Your task to perform on an android device: toggle pop-ups in chrome Image 0: 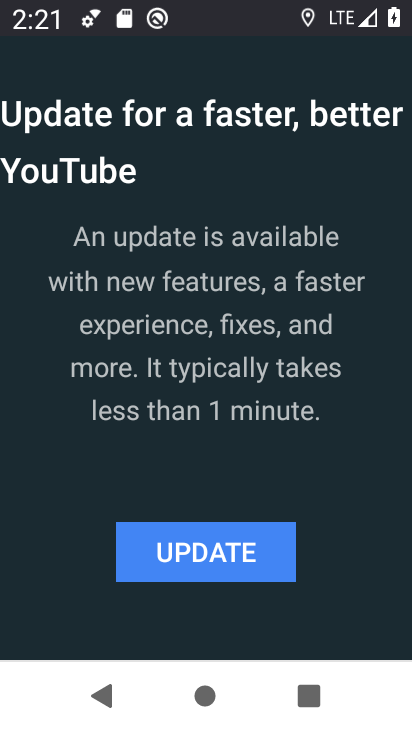
Step 0: press home button
Your task to perform on an android device: toggle pop-ups in chrome Image 1: 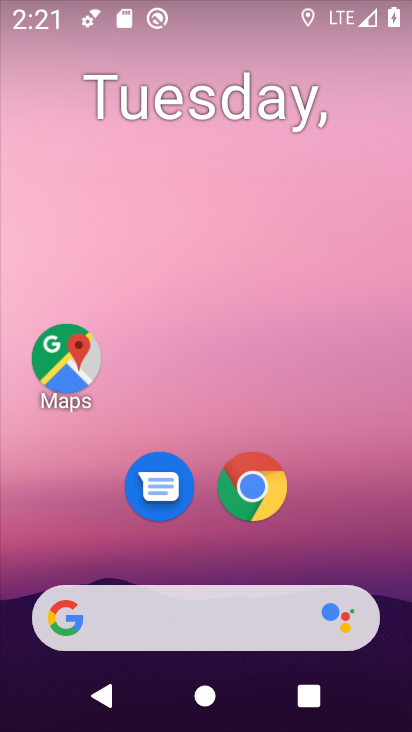
Step 1: drag from (358, 559) to (337, 117)
Your task to perform on an android device: toggle pop-ups in chrome Image 2: 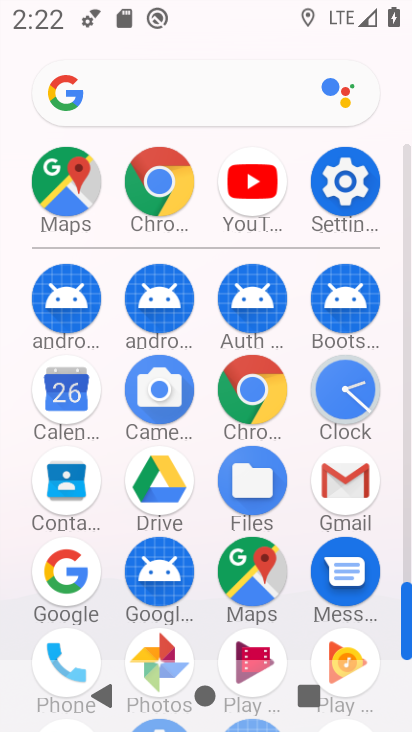
Step 2: click (249, 394)
Your task to perform on an android device: toggle pop-ups in chrome Image 3: 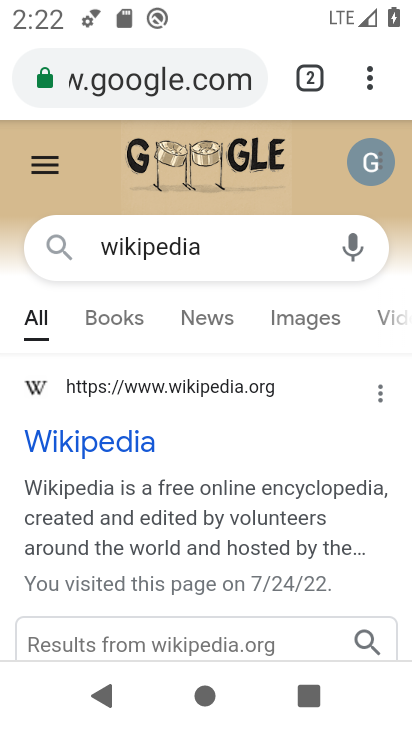
Step 3: click (369, 87)
Your task to perform on an android device: toggle pop-ups in chrome Image 4: 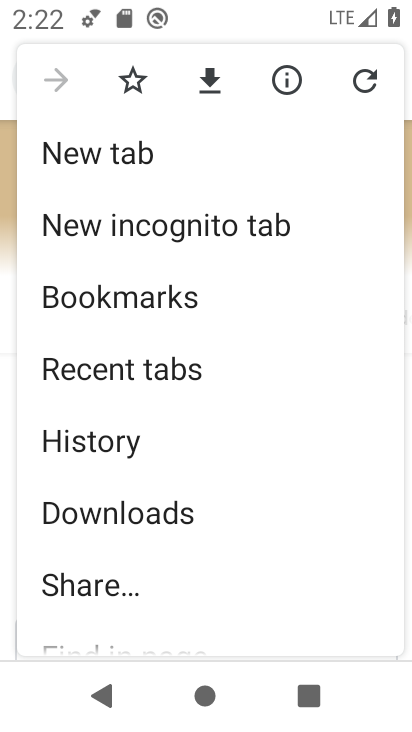
Step 4: drag from (314, 466) to (316, 375)
Your task to perform on an android device: toggle pop-ups in chrome Image 5: 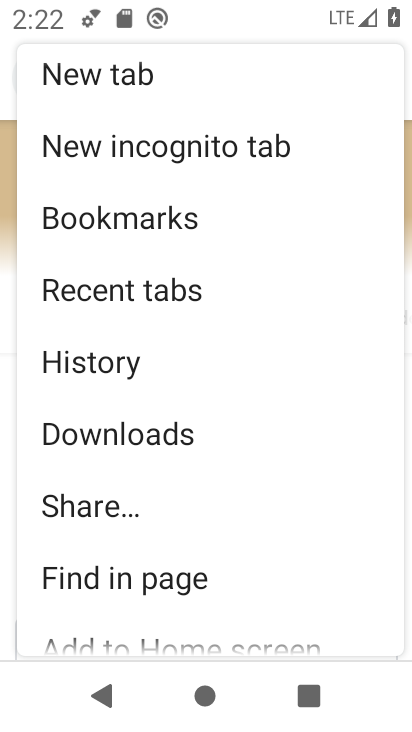
Step 5: drag from (319, 507) to (319, 385)
Your task to perform on an android device: toggle pop-ups in chrome Image 6: 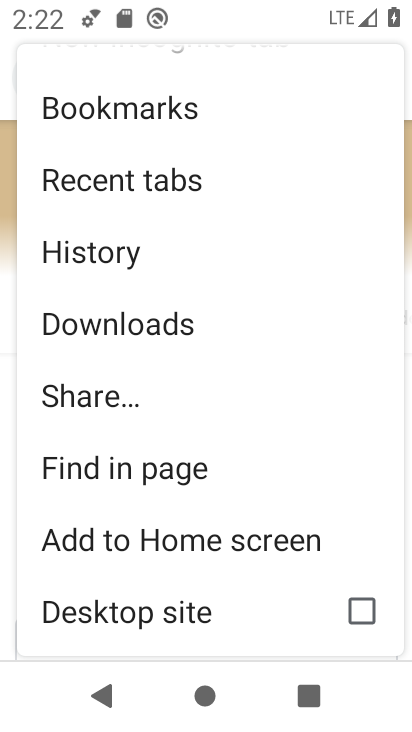
Step 6: drag from (321, 532) to (323, 411)
Your task to perform on an android device: toggle pop-ups in chrome Image 7: 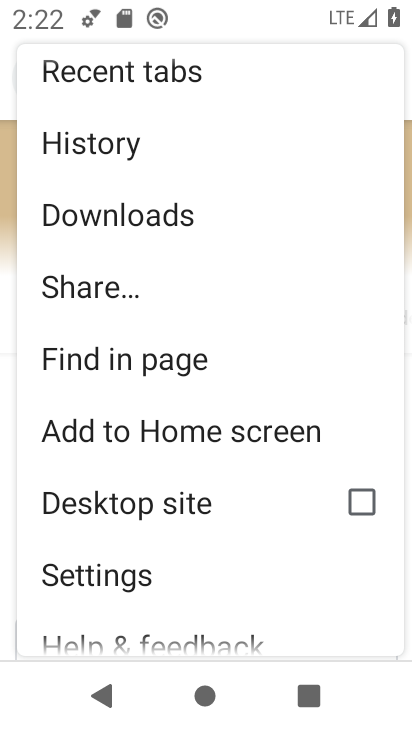
Step 7: drag from (267, 573) to (270, 407)
Your task to perform on an android device: toggle pop-ups in chrome Image 8: 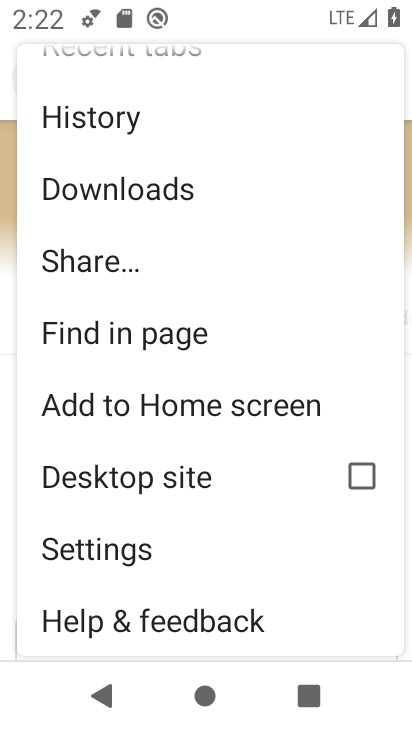
Step 8: click (246, 544)
Your task to perform on an android device: toggle pop-ups in chrome Image 9: 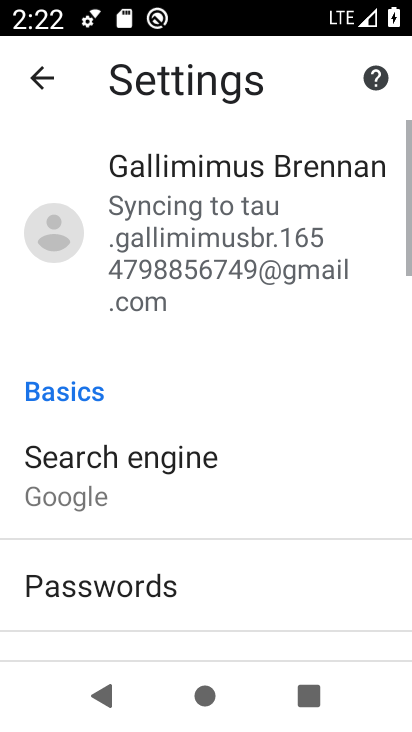
Step 9: drag from (270, 529) to (283, 443)
Your task to perform on an android device: toggle pop-ups in chrome Image 10: 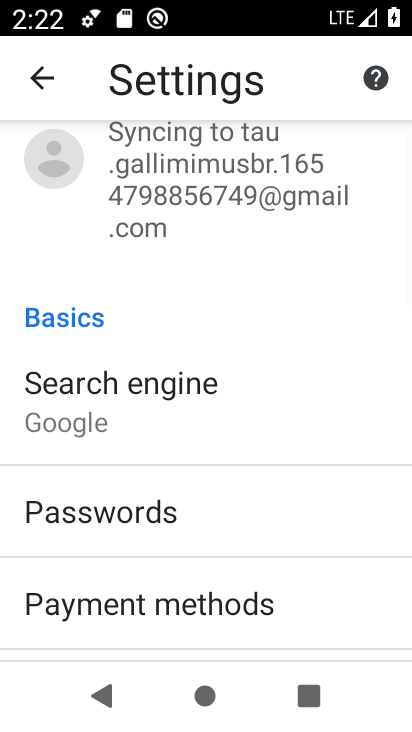
Step 10: drag from (316, 570) to (323, 454)
Your task to perform on an android device: toggle pop-ups in chrome Image 11: 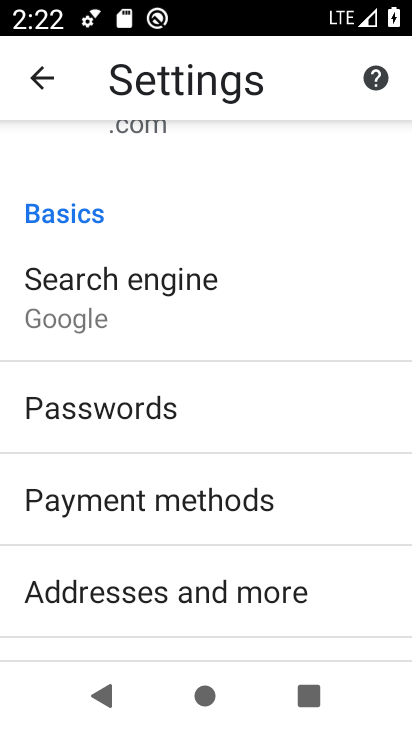
Step 11: drag from (349, 566) to (351, 480)
Your task to perform on an android device: toggle pop-ups in chrome Image 12: 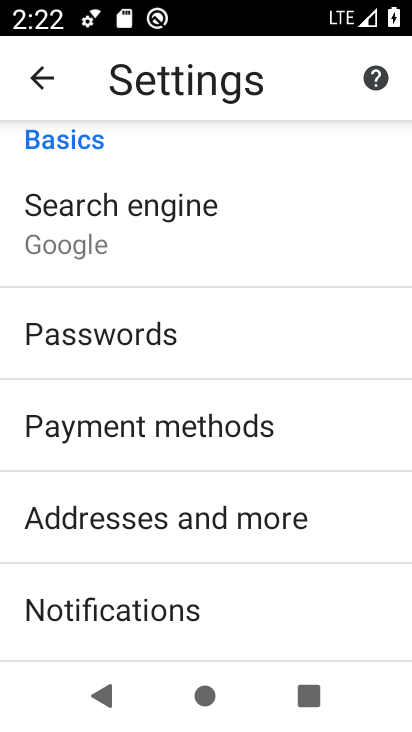
Step 12: drag from (359, 494) to (358, 410)
Your task to perform on an android device: toggle pop-ups in chrome Image 13: 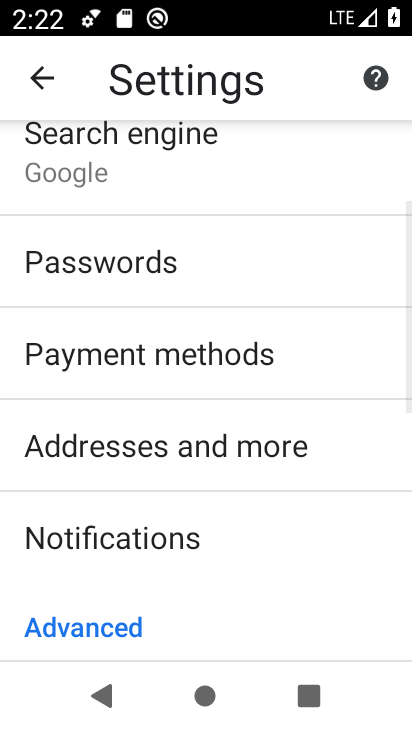
Step 13: drag from (330, 512) to (334, 435)
Your task to perform on an android device: toggle pop-ups in chrome Image 14: 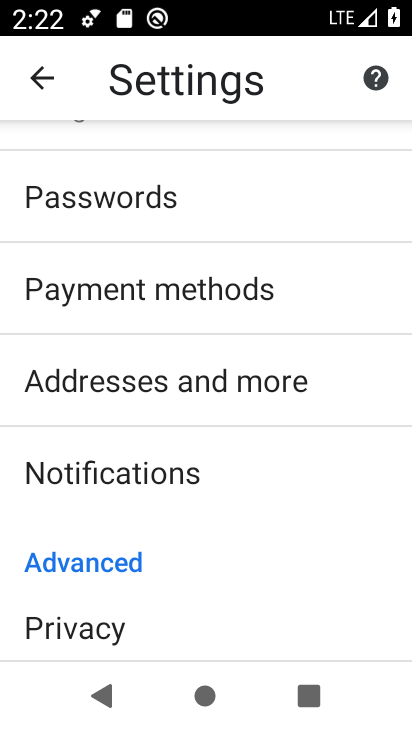
Step 14: drag from (317, 514) to (319, 411)
Your task to perform on an android device: toggle pop-ups in chrome Image 15: 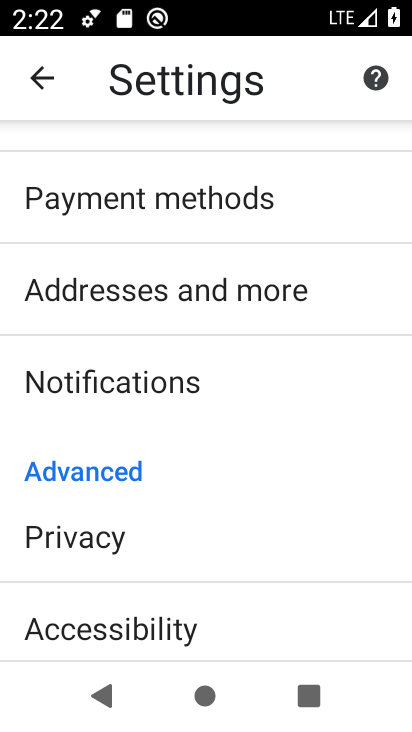
Step 15: drag from (316, 465) to (319, 342)
Your task to perform on an android device: toggle pop-ups in chrome Image 16: 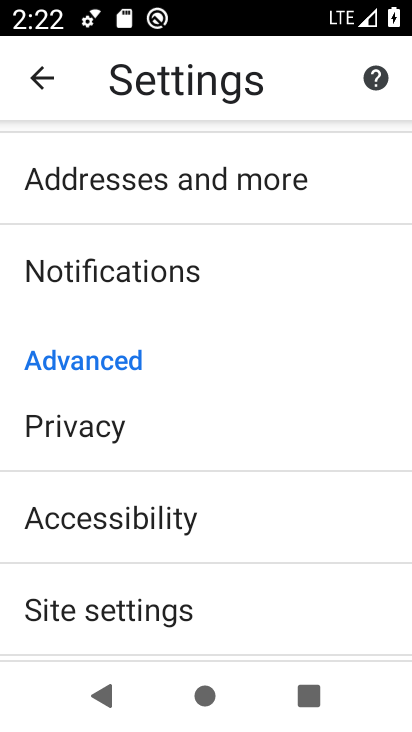
Step 16: drag from (294, 544) to (294, 417)
Your task to perform on an android device: toggle pop-ups in chrome Image 17: 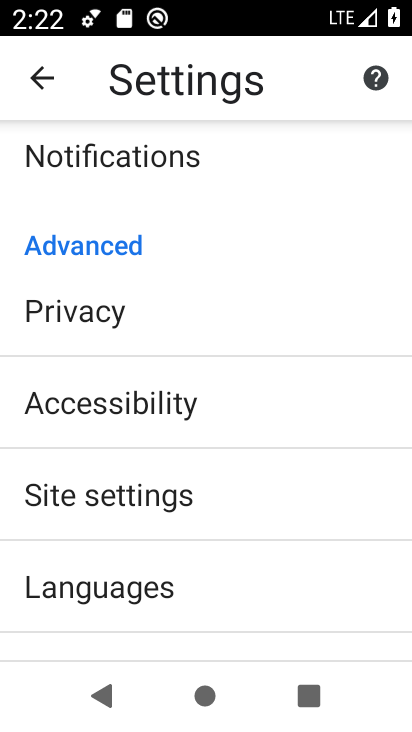
Step 17: click (287, 500)
Your task to perform on an android device: toggle pop-ups in chrome Image 18: 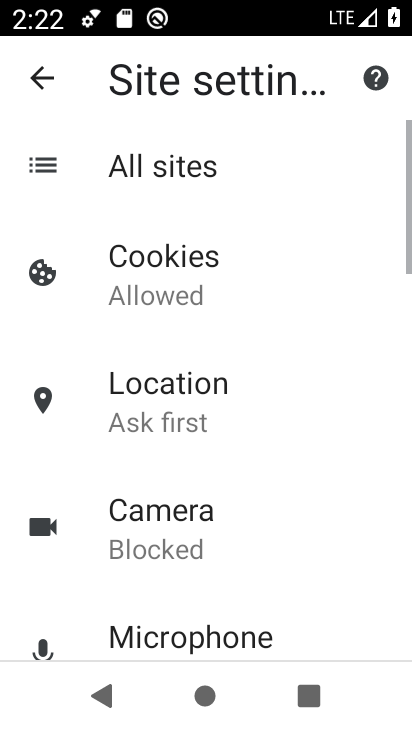
Step 18: drag from (306, 533) to (316, 430)
Your task to perform on an android device: toggle pop-ups in chrome Image 19: 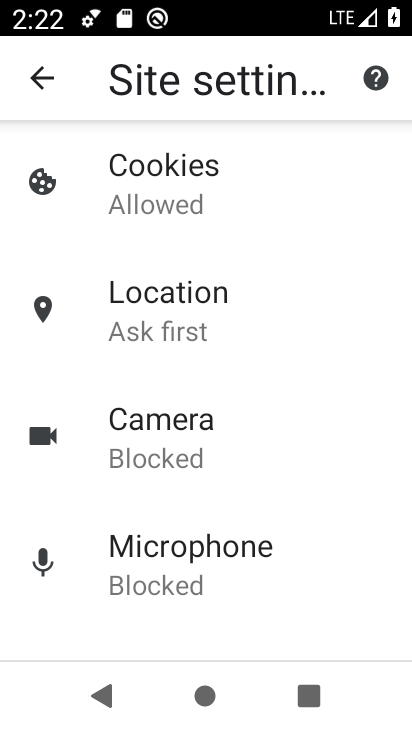
Step 19: drag from (330, 529) to (332, 472)
Your task to perform on an android device: toggle pop-ups in chrome Image 20: 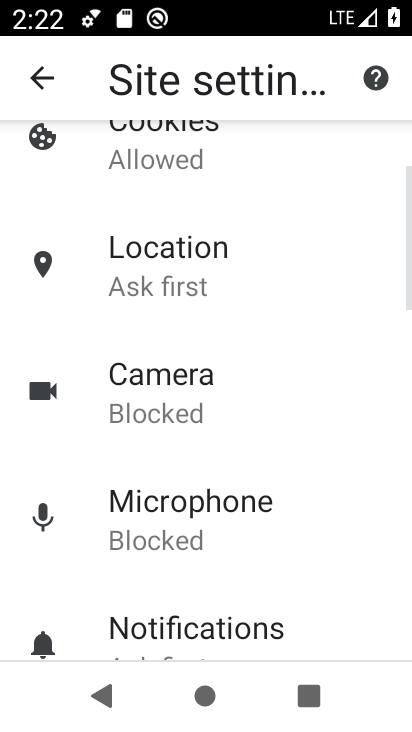
Step 20: drag from (325, 543) to (328, 459)
Your task to perform on an android device: toggle pop-ups in chrome Image 21: 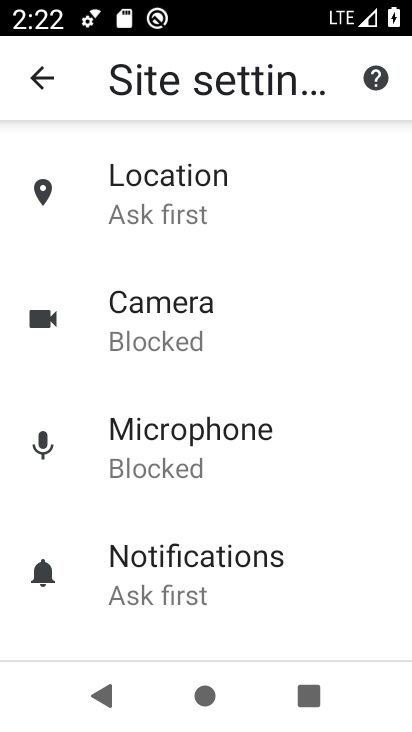
Step 21: drag from (320, 506) to (327, 428)
Your task to perform on an android device: toggle pop-ups in chrome Image 22: 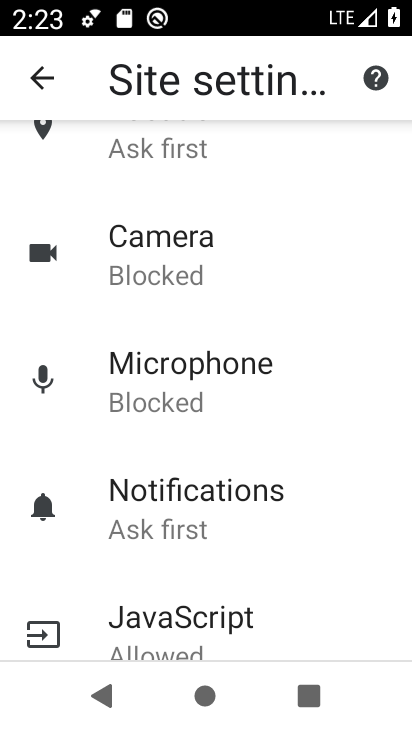
Step 22: drag from (334, 541) to (330, 458)
Your task to perform on an android device: toggle pop-ups in chrome Image 23: 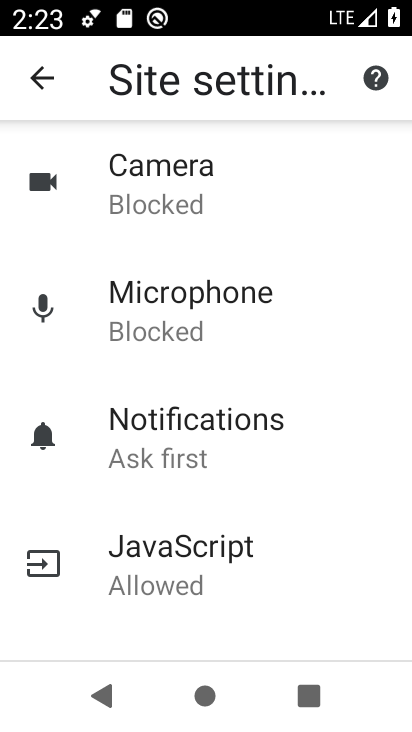
Step 23: drag from (320, 538) to (320, 391)
Your task to perform on an android device: toggle pop-ups in chrome Image 24: 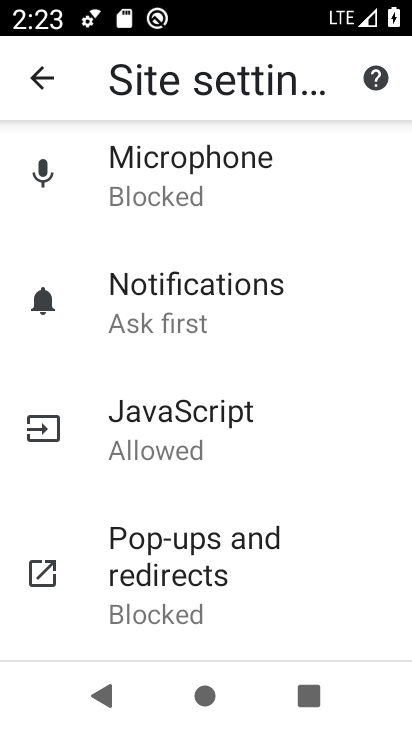
Step 24: drag from (309, 546) to (315, 442)
Your task to perform on an android device: toggle pop-ups in chrome Image 25: 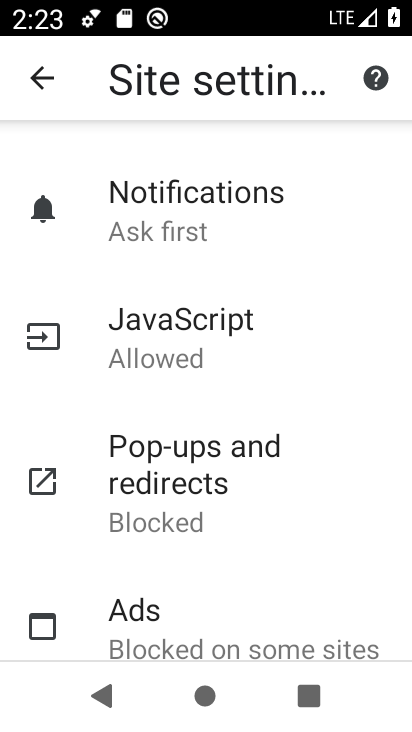
Step 25: click (309, 466)
Your task to perform on an android device: toggle pop-ups in chrome Image 26: 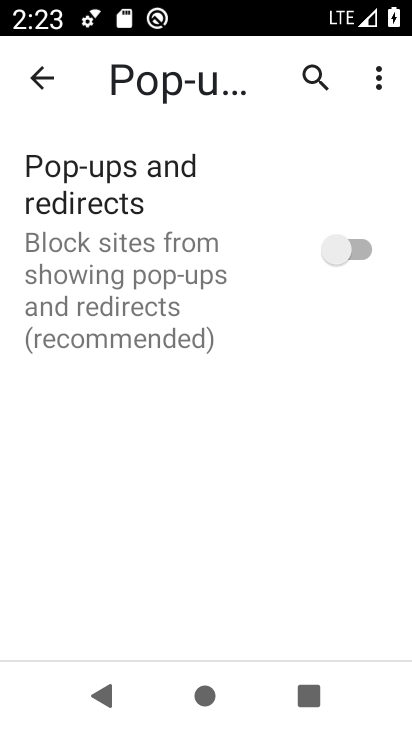
Step 26: click (356, 260)
Your task to perform on an android device: toggle pop-ups in chrome Image 27: 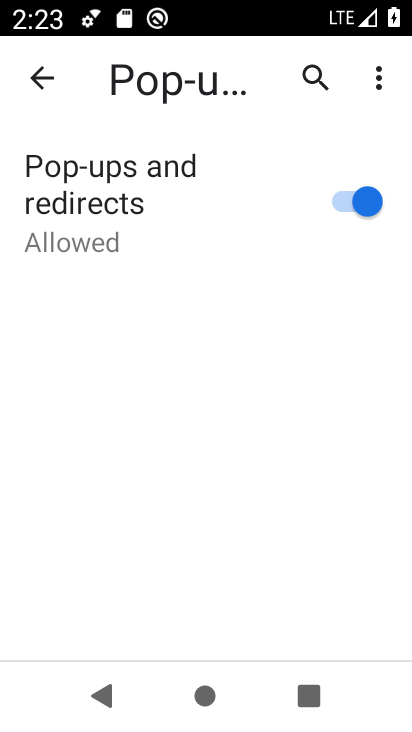
Step 27: task complete